Your task to perform on an android device: turn notification dots on Image 0: 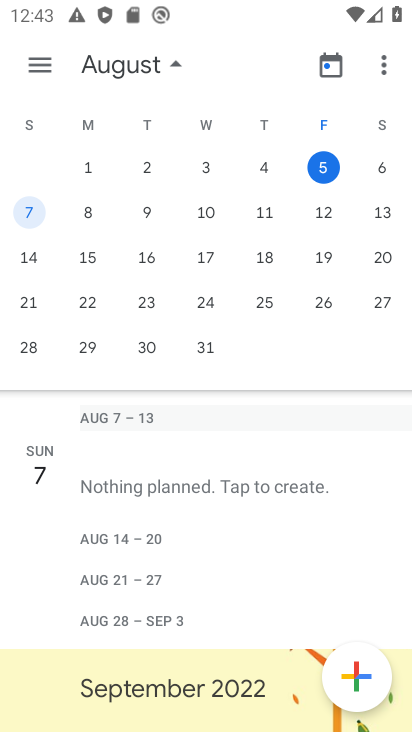
Step 0: press home button
Your task to perform on an android device: turn notification dots on Image 1: 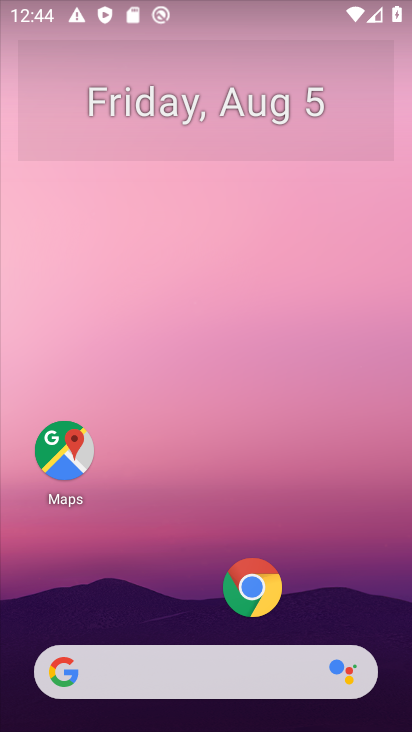
Step 1: drag from (255, 394) to (281, 0)
Your task to perform on an android device: turn notification dots on Image 2: 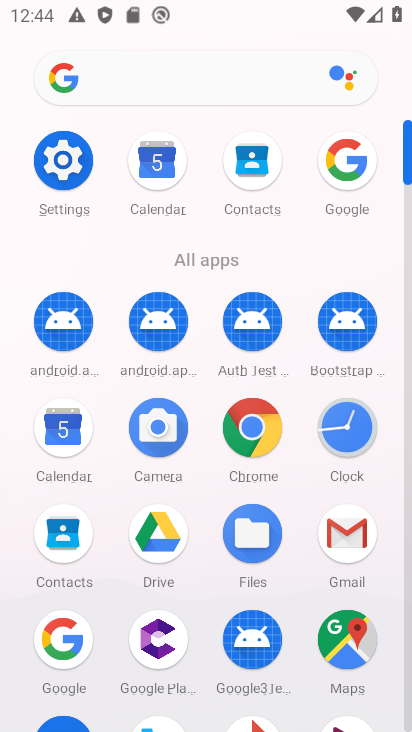
Step 2: click (64, 181)
Your task to perform on an android device: turn notification dots on Image 3: 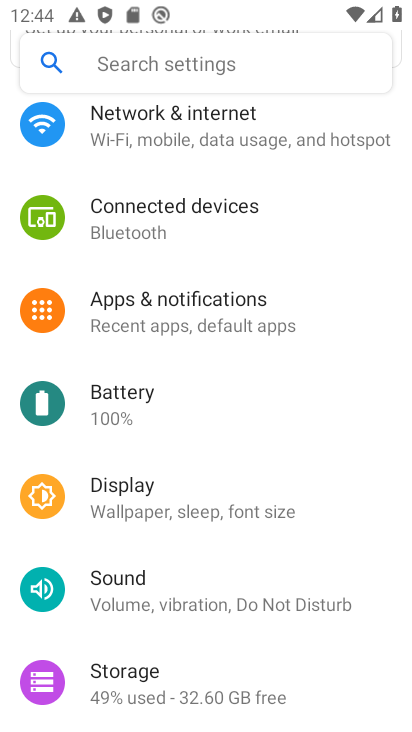
Step 3: click (274, 327)
Your task to perform on an android device: turn notification dots on Image 4: 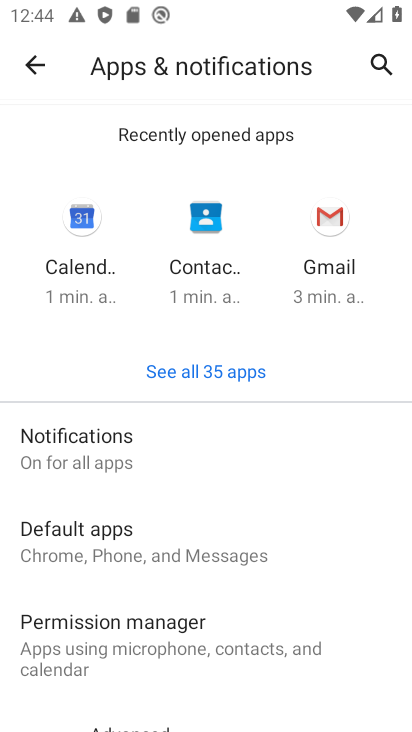
Step 4: click (249, 443)
Your task to perform on an android device: turn notification dots on Image 5: 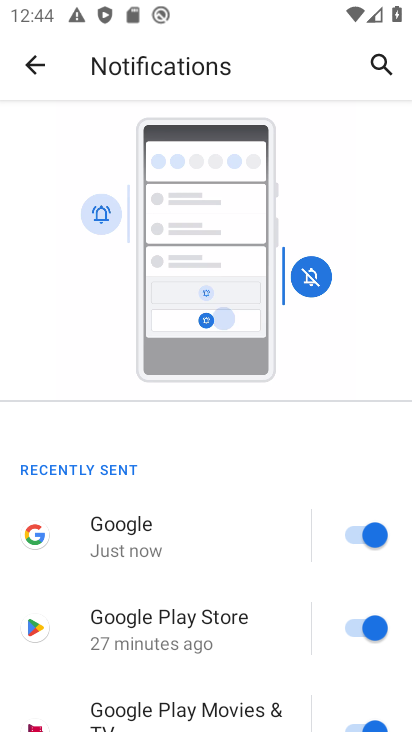
Step 5: drag from (252, 604) to (360, 28)
Your task to perform on an android device: turn notification dots on Image 6: 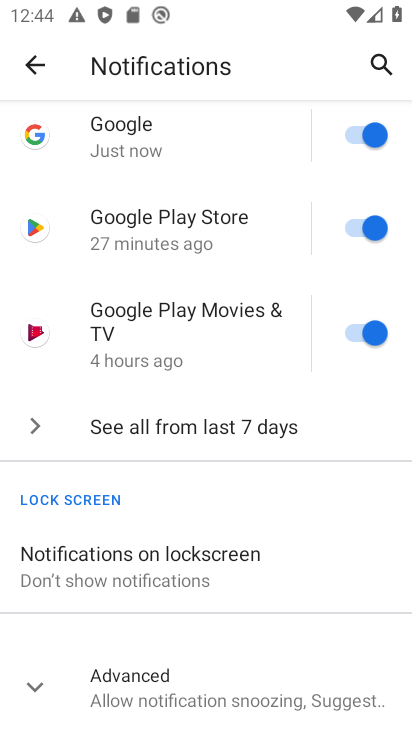
Step 6: click (176, 570)
Your task to perform on an android device: turn notification dots on Image 7: 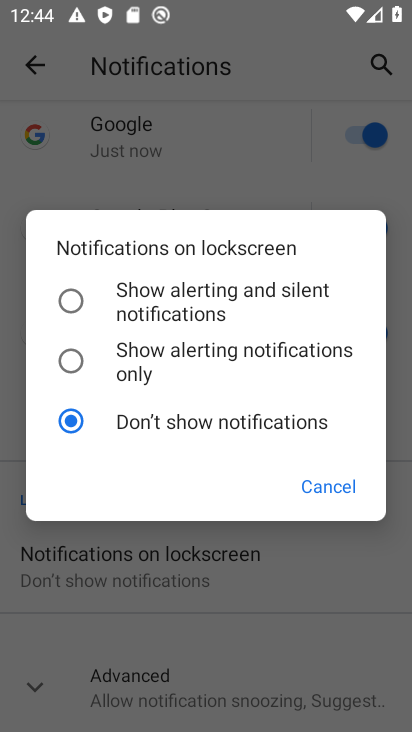
Step 7: click (268, 667)
Your task to perform on an android device: turn notification dots on Image 8: 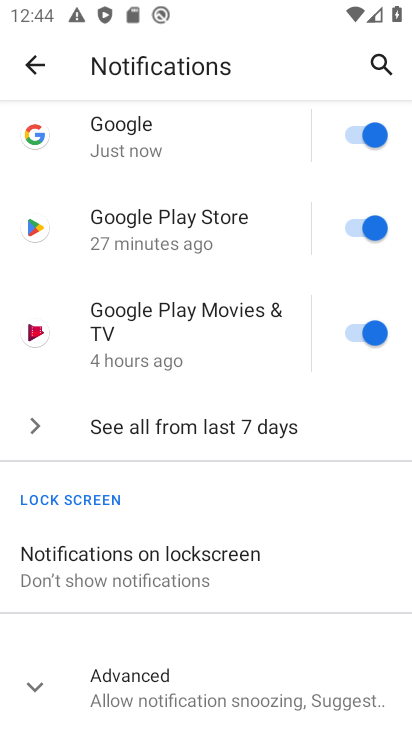
Step 8: click (338, 494)
Your task to perform on an android device: turn notification dots on Image 9: 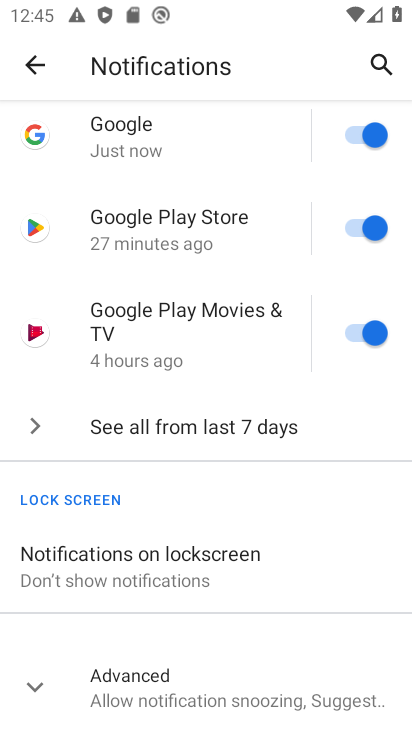
Step 9: drag from (336, 436) to (313, 122)
Your task to perform on an android device: turn notification dots on Image 10: 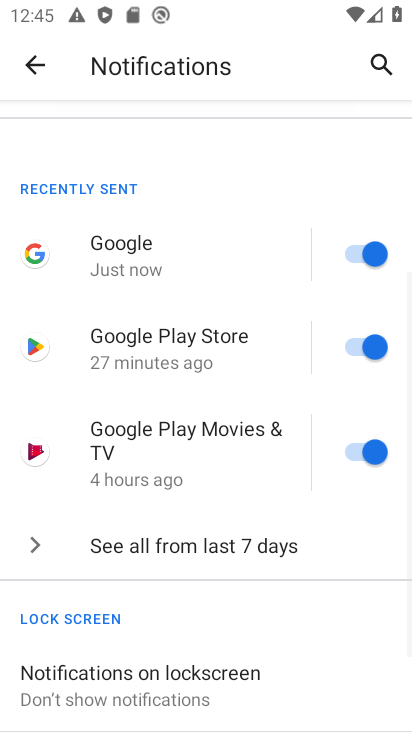
Step 10: drag from (233, 688) to (285, 4)
Your task to perform on an android device: turn notification dots on Image 11: 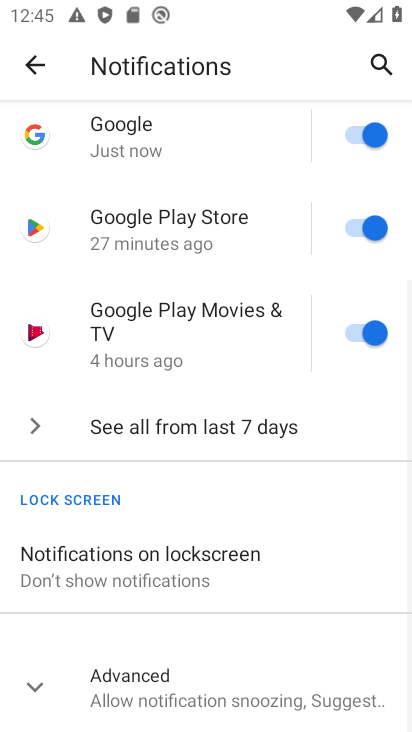
Step 11: click (296, 687)
Your task to perform on an android device: turn notification dots on Image 12: 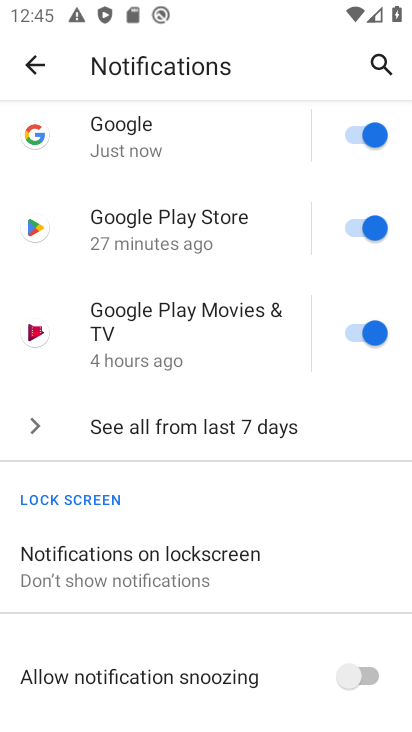
Step 12: task complete